Your task to perform on an android device: Turn off the flashlight Image 0: 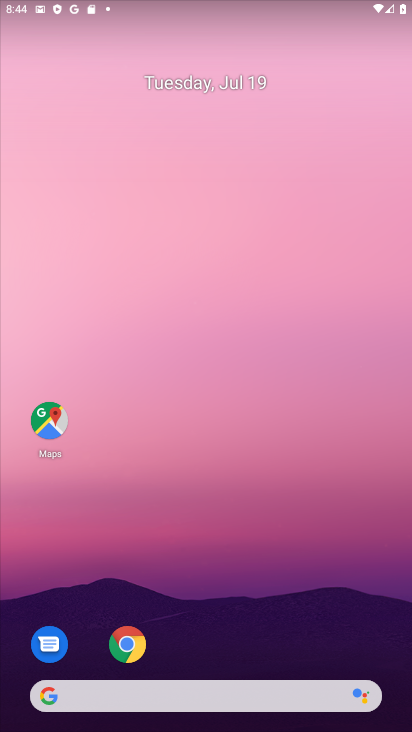
Step 0: drag from (273, 581) to (205, 118)
Your task to perform on an android device: Turn off the flashlight Image 1: 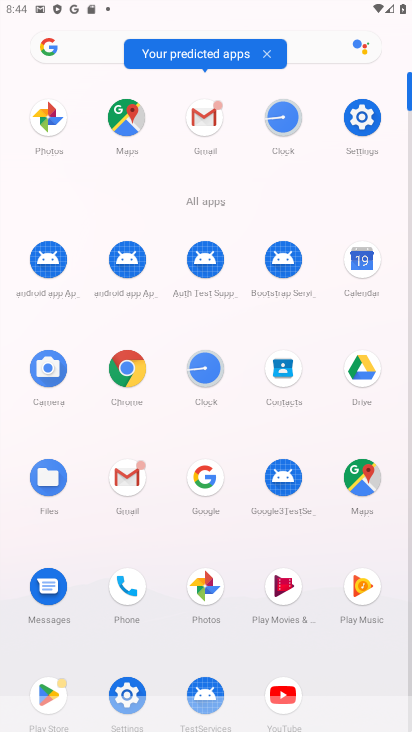
Step 1: click (365, 135)
Your task to perform on an android device: Turn off the flashlight Image 2: 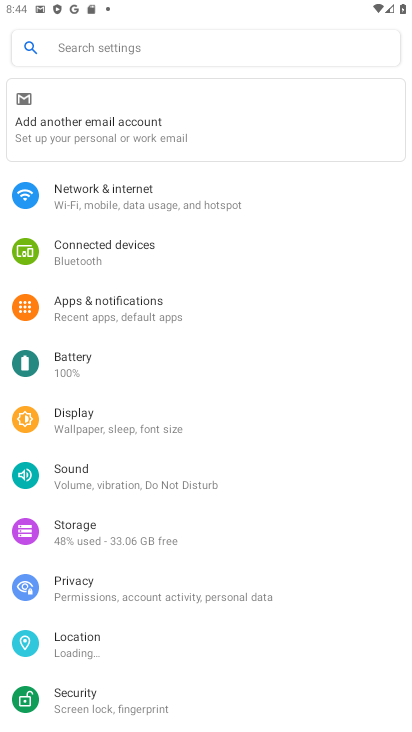
Step 2: task complete